Your task to perform on an android device: check data usage Image 0: 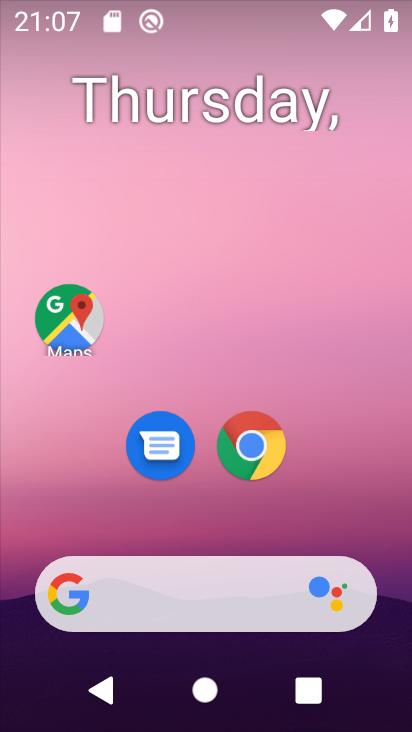
Step 0: drag from (276, 532) to (243, 159)
Your task to perform on an android device: check data usage Image 1: 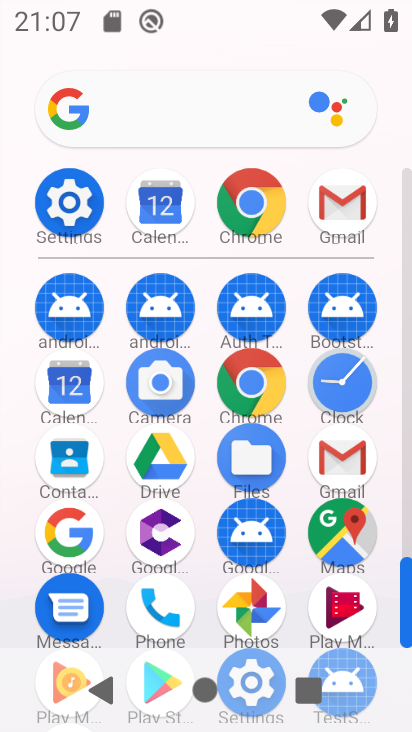
Step 1: click (76, 196)
Your task to perform on an android device: check data usage Image 2: 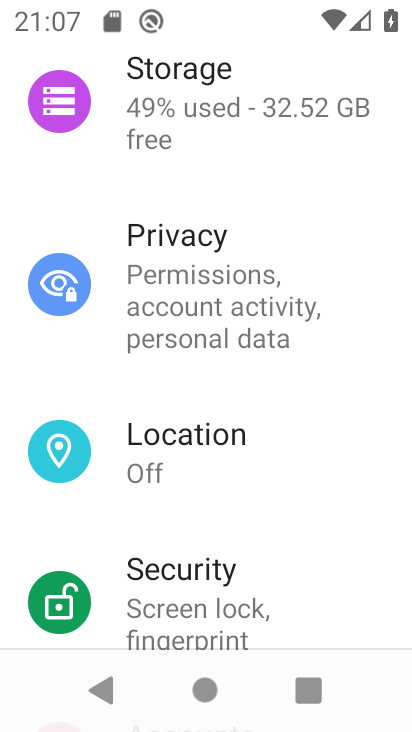
Step 2: drag from (228, 596) to (188, 569)
Your task to perform on an android device: check data usage Image 3: 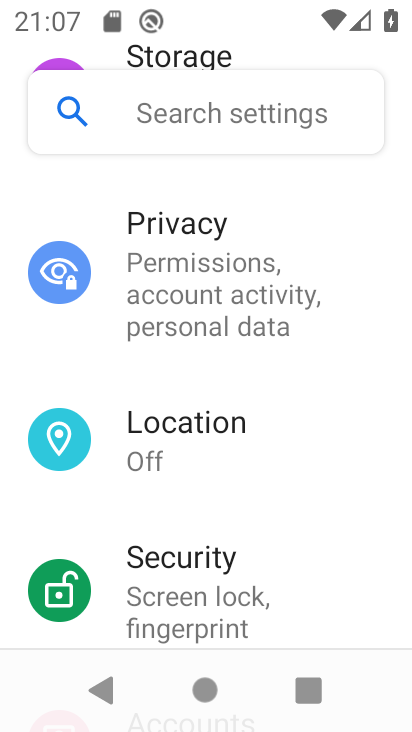
Step 3: drag from (186, 229) to (183, 586)
Your task to perform on an android device: check data usage Image 4: 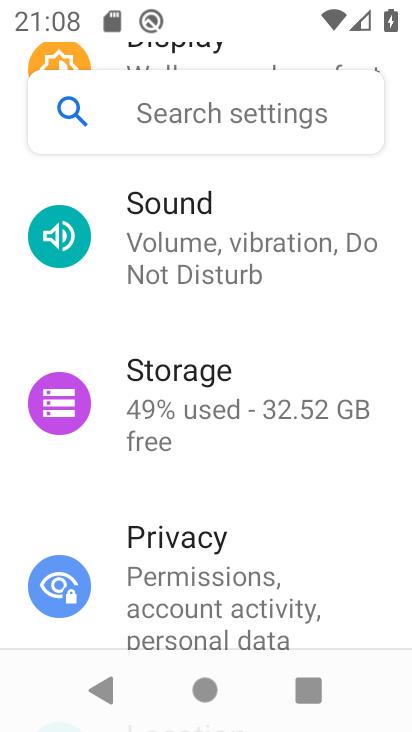
Step 4: drag from (258, 309) to (215, 522)
Your task to perform on an android device: check data usage Image 5: 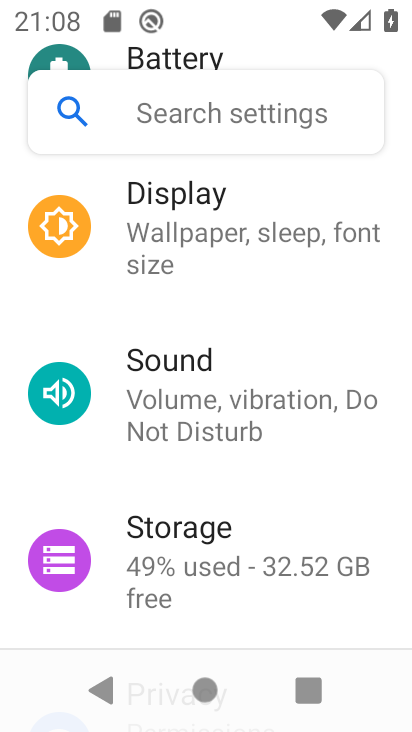
Step 5: drag from (279, 275) to (261, 628)
Your task to perform on an android device: check data usage Image 6: 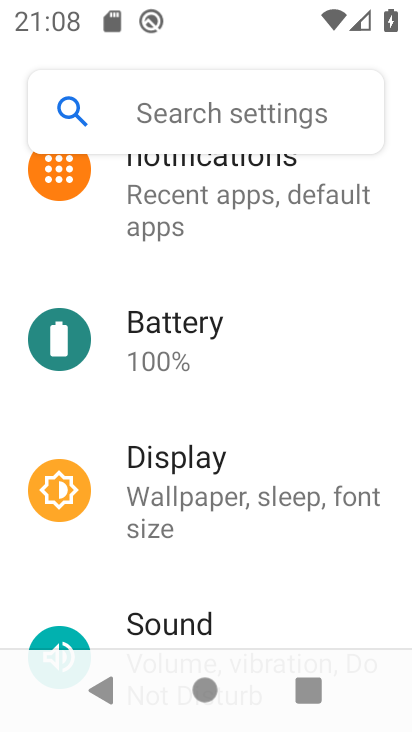
Step 6: drag from (225, 300) to (272, 598)
Your task to perform on an android device: check data usage Image 7: 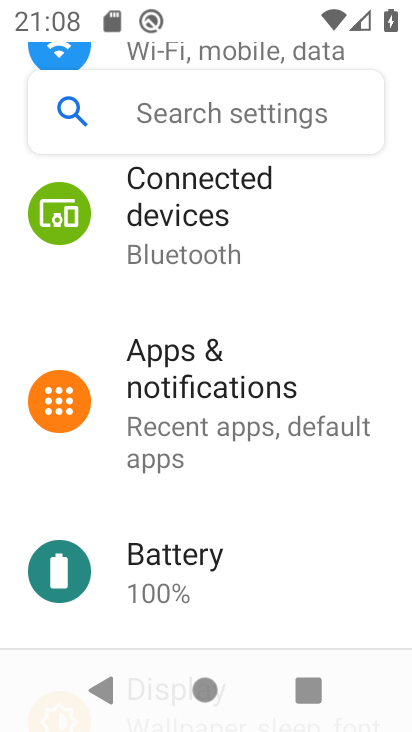
Step 7: drag from (275, 278) to (265, 478)
Your task to perform on an android device: check data usage Image 8: 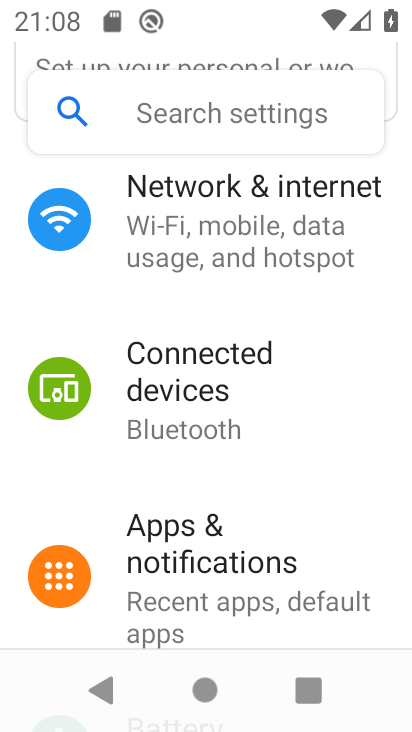
Step 8: click (248, 246)
Your task to perform on an android device: check data usage Image 9: 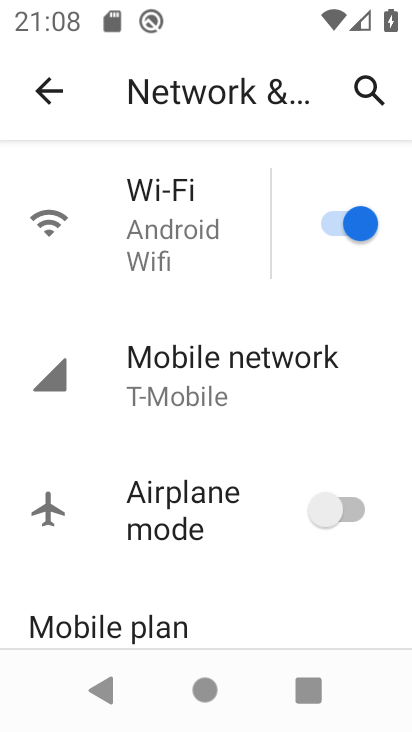
Step 9: drag from (198, 627) to (199, 258)
Your task to perform on an android device: check data usage Image 10: 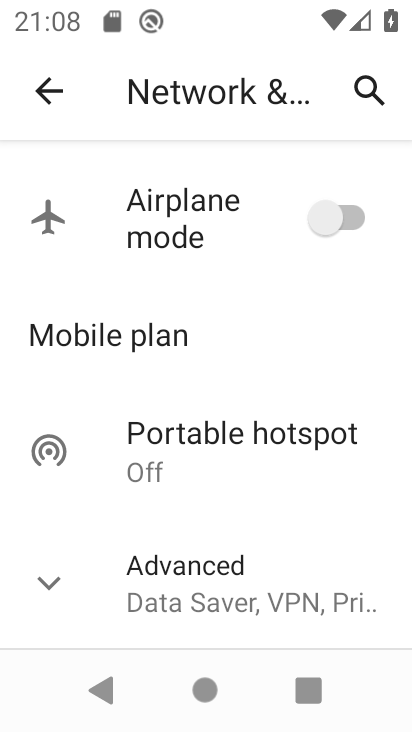
Step 10: drag from (193, 282) to (207, 605)
Your task to perform on an android device: check data usage Image 11: 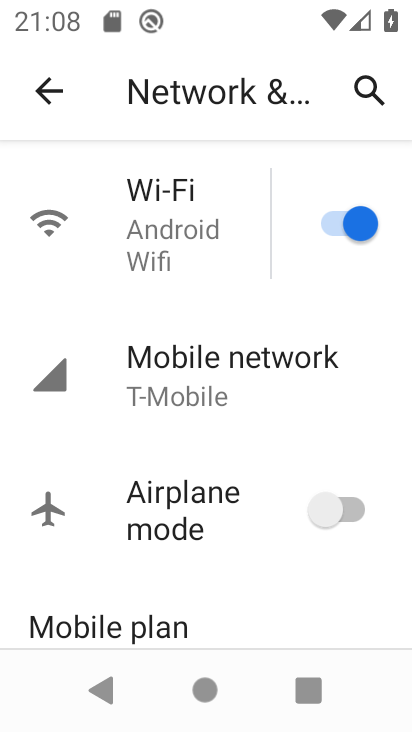
Step 11: click (204, 398)
Your task to perform on an android device: check data usage Image 12: 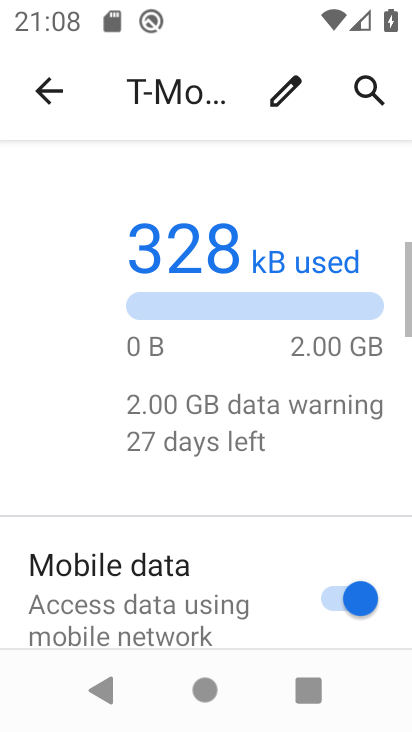
Step 12: task complete